Your task to perform on an android device: open app "Fetch Rewards" (install if not already installed) and go to login screen Image 0: 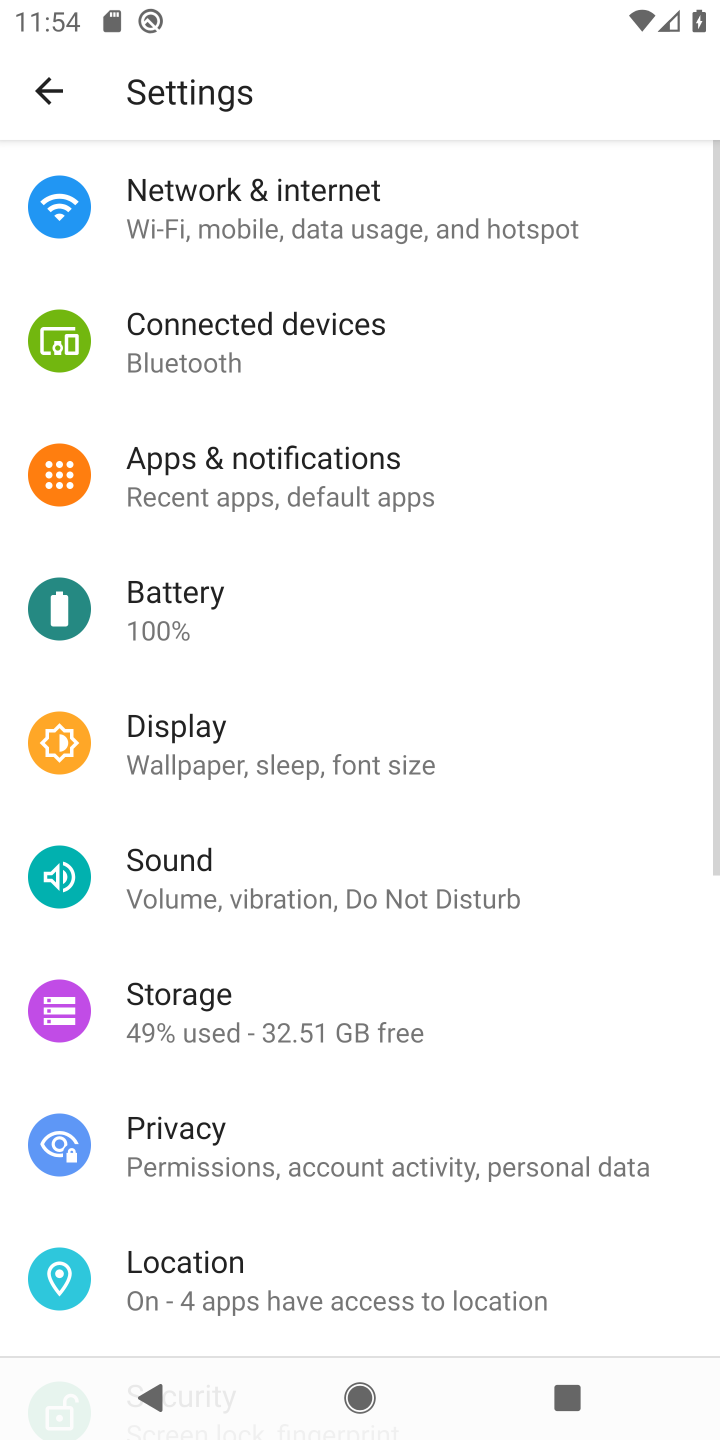
Step 0: press home button
Your task to perform on an android device: open app "Fetch Rewards" (install if not already installed) and go to login screen Image 1: 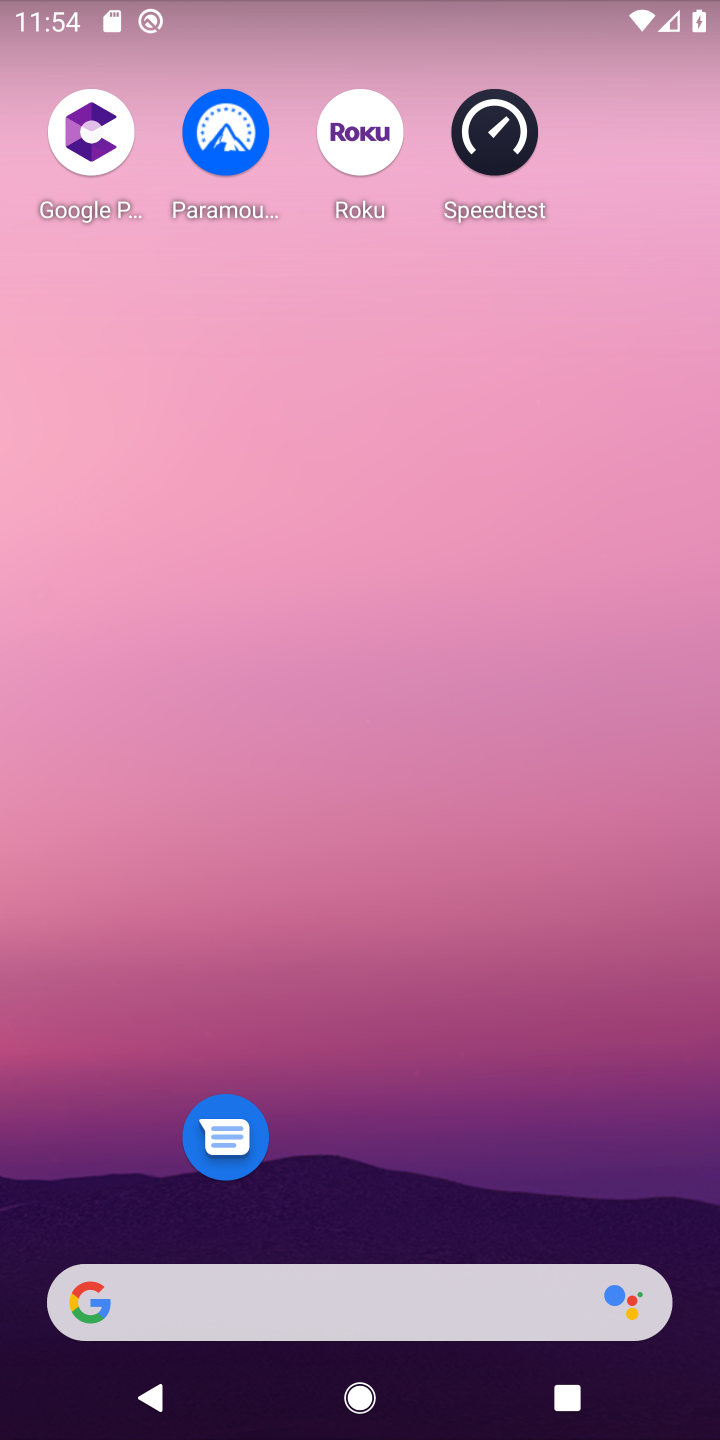
Step 1: drag from (445, 1186) to (408, 401)
Your task to perform on an android device: open app "Fetch Rewards" (install if not already installed) and go to login screen Image 2: 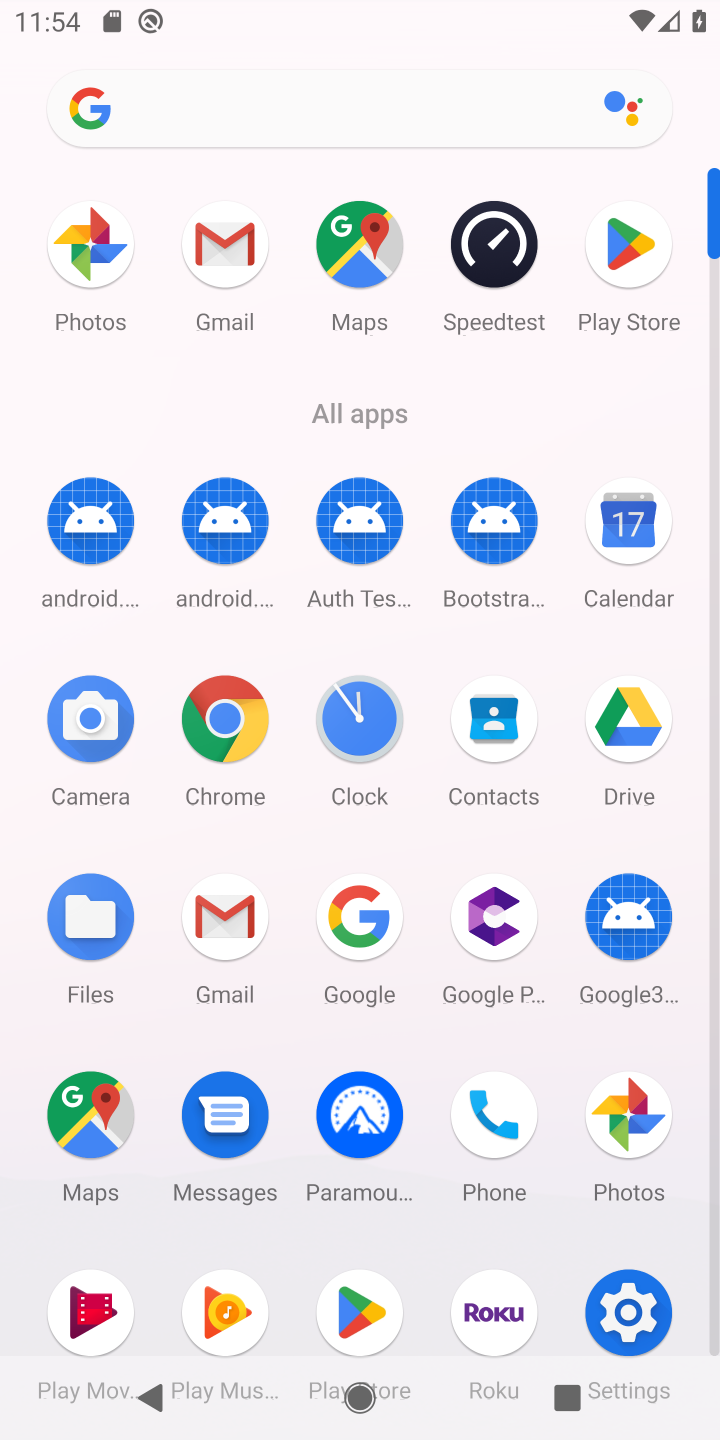
Step 2: click (609, 226)
Your task to perform on an android device: open app "Fetch Rewards" (install if not already installed) and go to login screen Image 3: 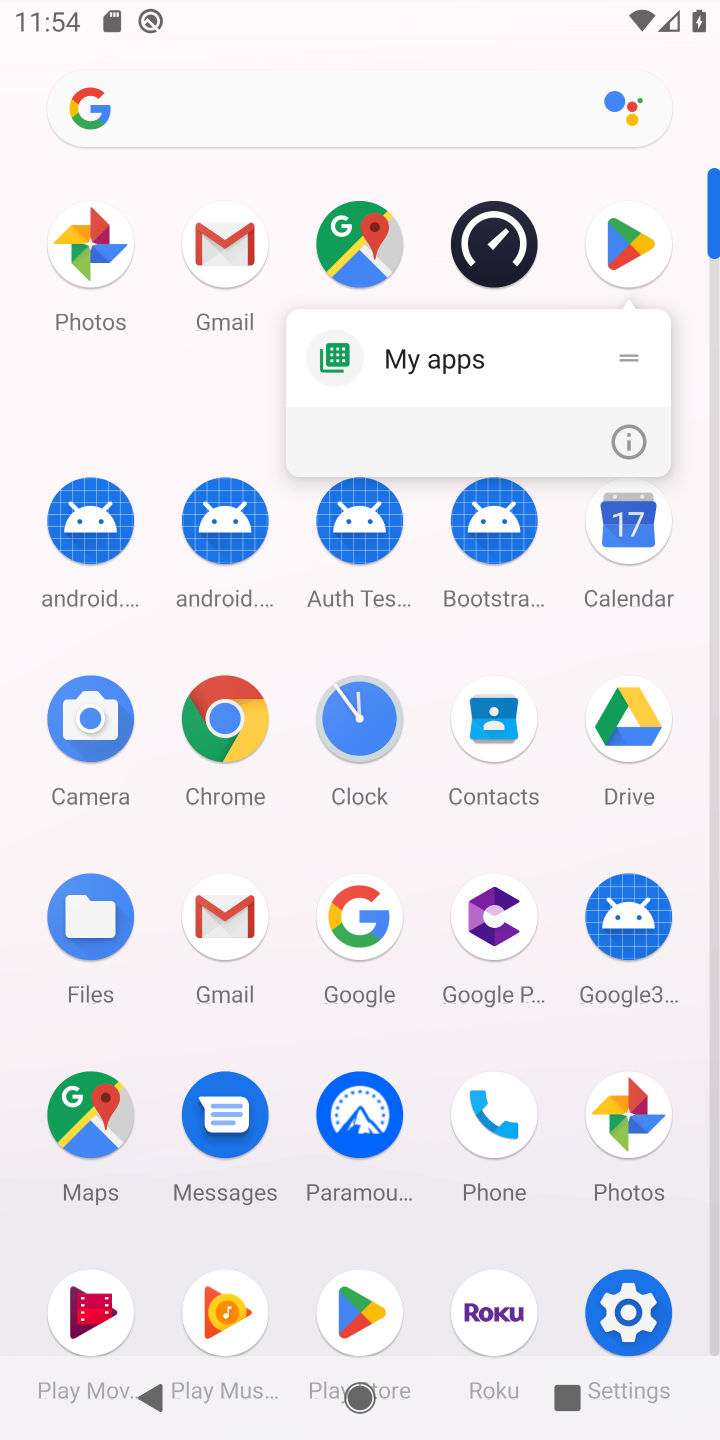
Step 3: click (609, 226)
Your task to perform on an android device: open app "Fetch Rewards" (install if not already installed) and go to login screen Image 4: 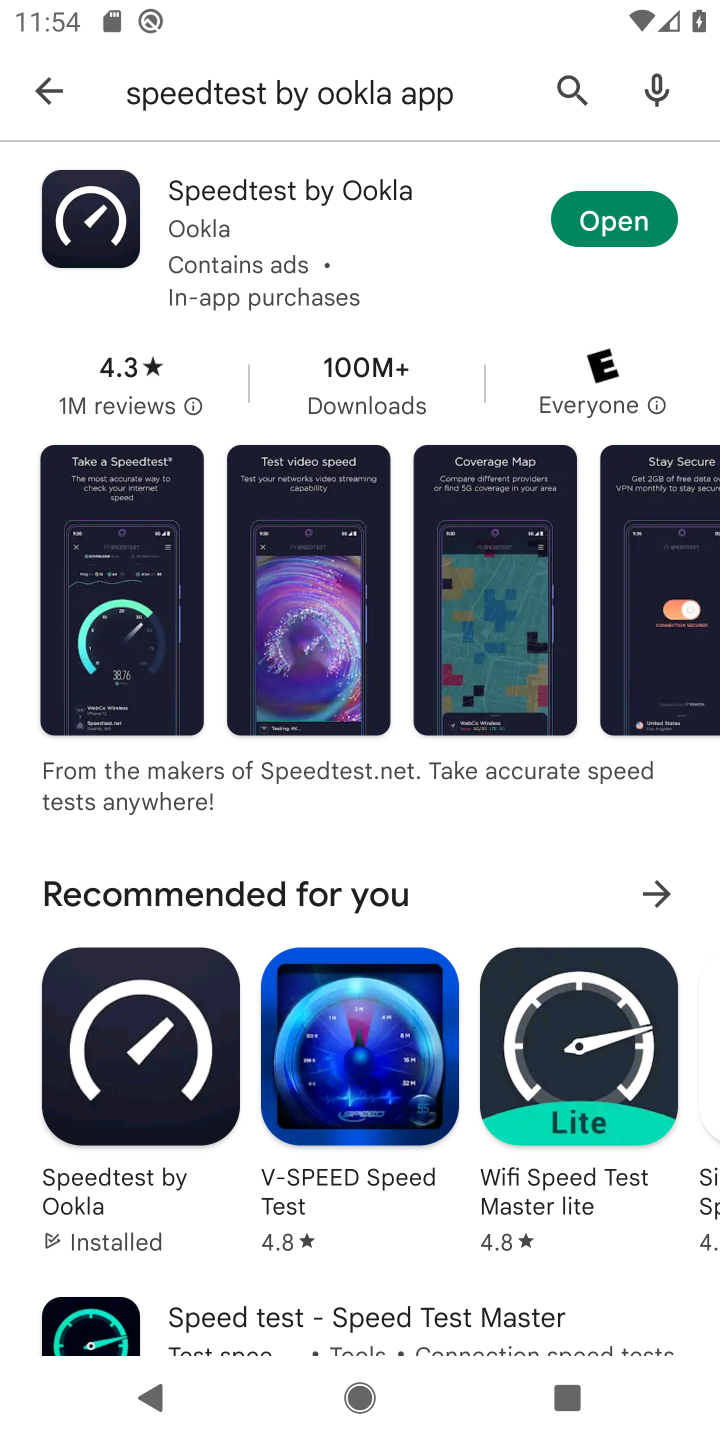
Step 4: click (47, 79)
Your task to perform on an android device: open app "Fetch Rewards" (install if not already installed) and go to login screen Image 5: 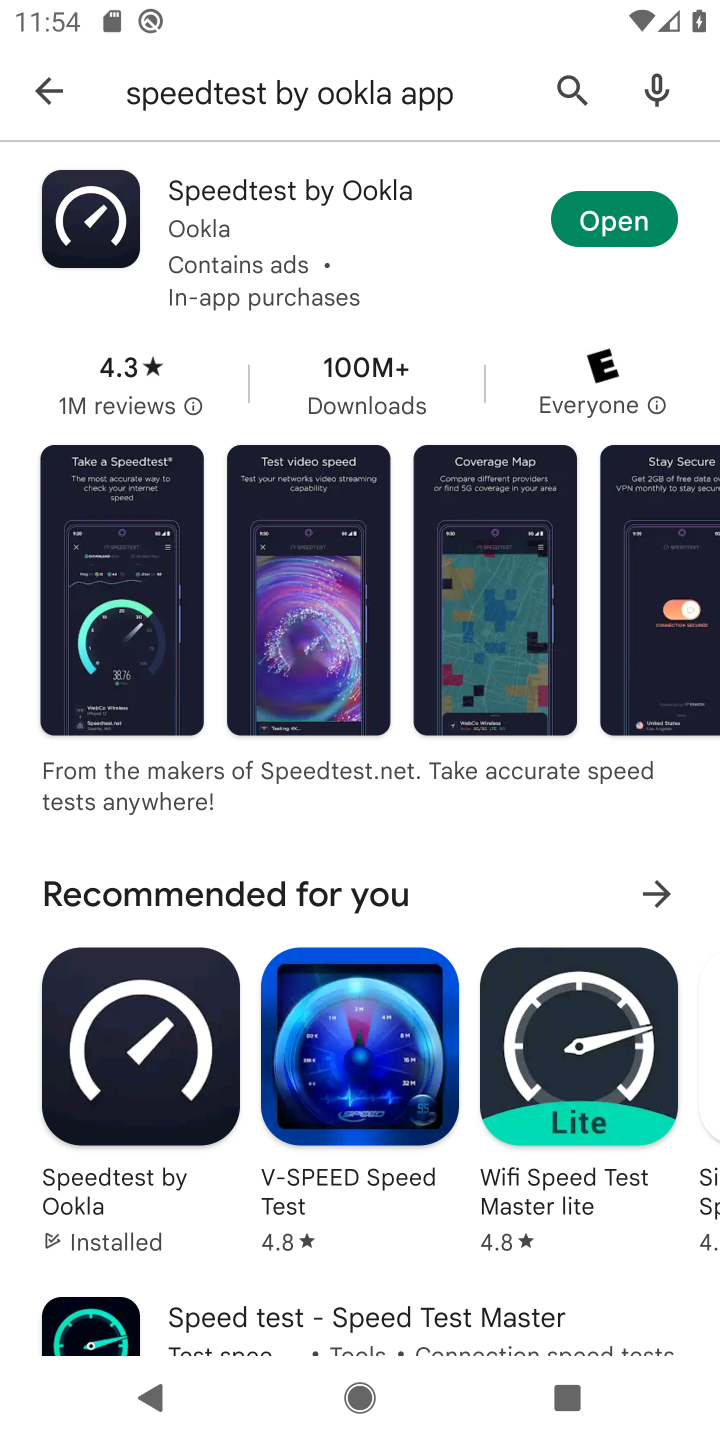
Step 5: click (47, 79)
Your task to perform on an android device: open app "Fetch Rewards" (install if not already installed) and go to login screen Image 6: 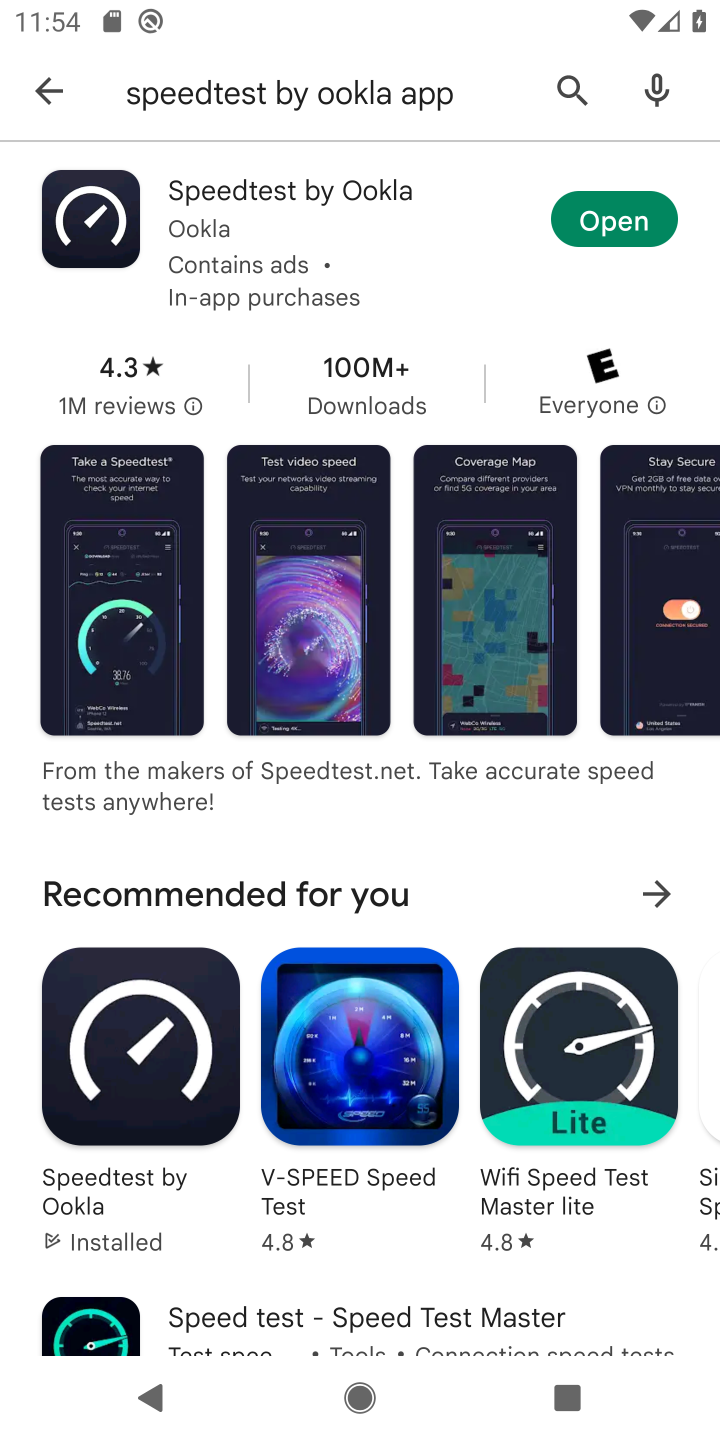
Step 6: click (47, 83)
Your task to perform on an android device: open app "Fetch Rewards" (install if not already installed) and go to login screen Image 7: 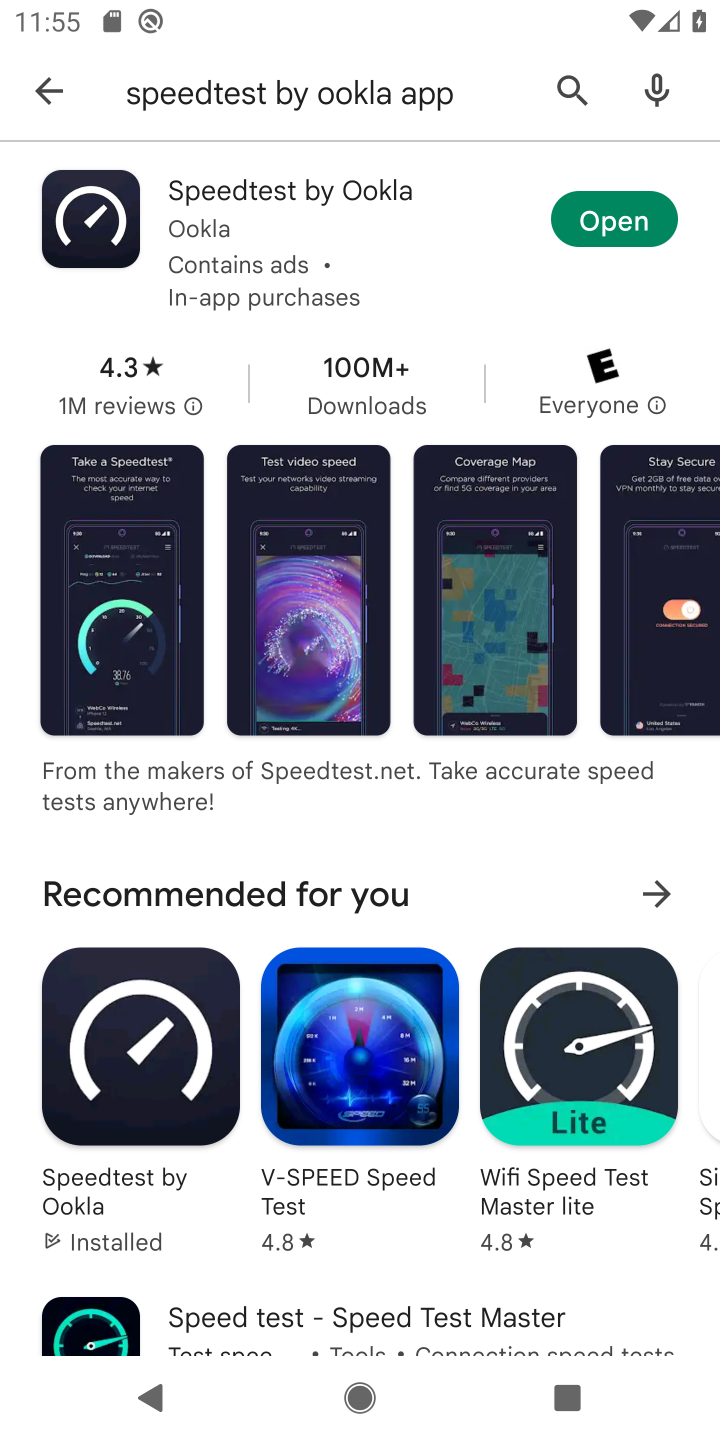
Step 7: click (44, 87)
Your task to perform on an android device: open app "Fetch Rewards" (install if not already installed) and go to login screen Image 8: 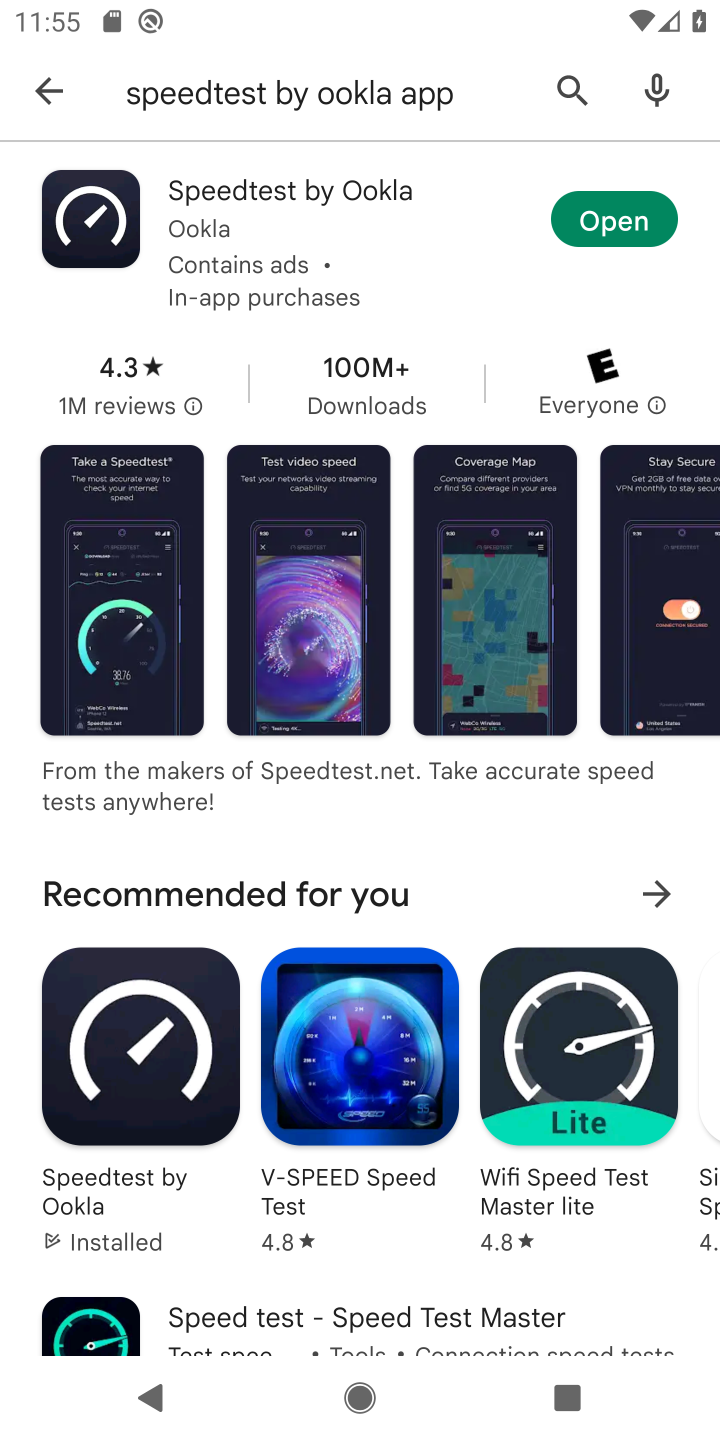
Step 8: click (572, 104)
Your task to perform on an android device: open app "Fetch Rewards" (install if not already installed) and go to login screen Image 9: 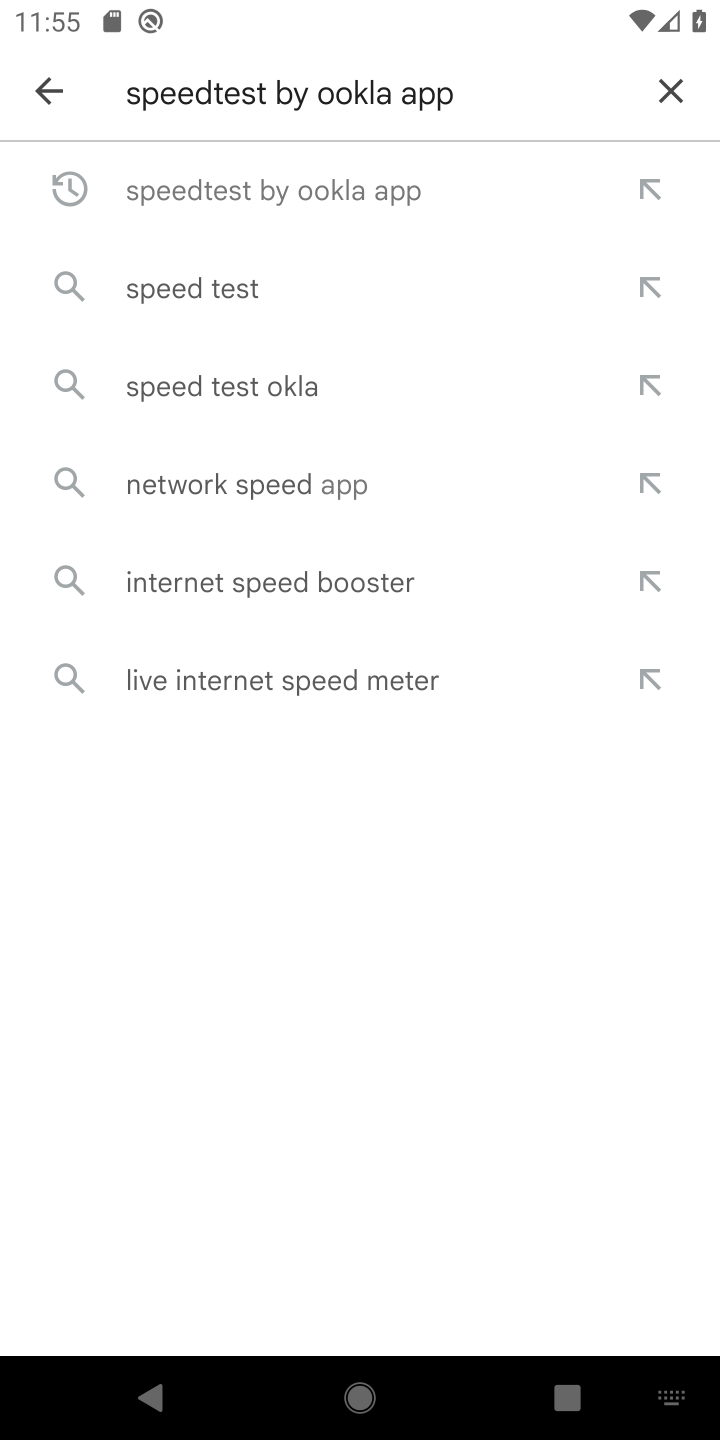
Step 9: click (664, 98)
Your task to perform on an android device: open app "Fetch Rewards" (install if not already installed) and go to login screen Image 10: 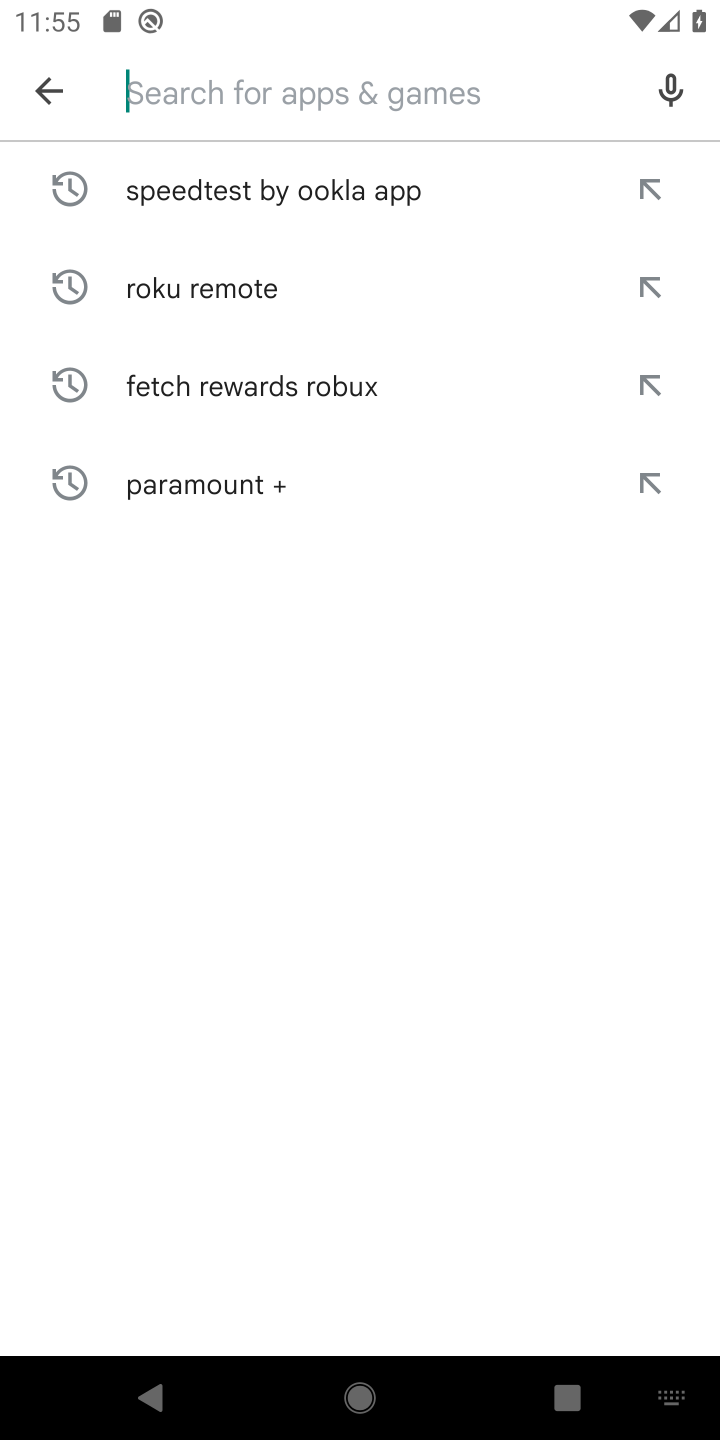
Step 10: click (346, 376)
Your task to perform on an android device: open app "Fetch Rewards" (install if not already installed) and go to login screen Image 11: 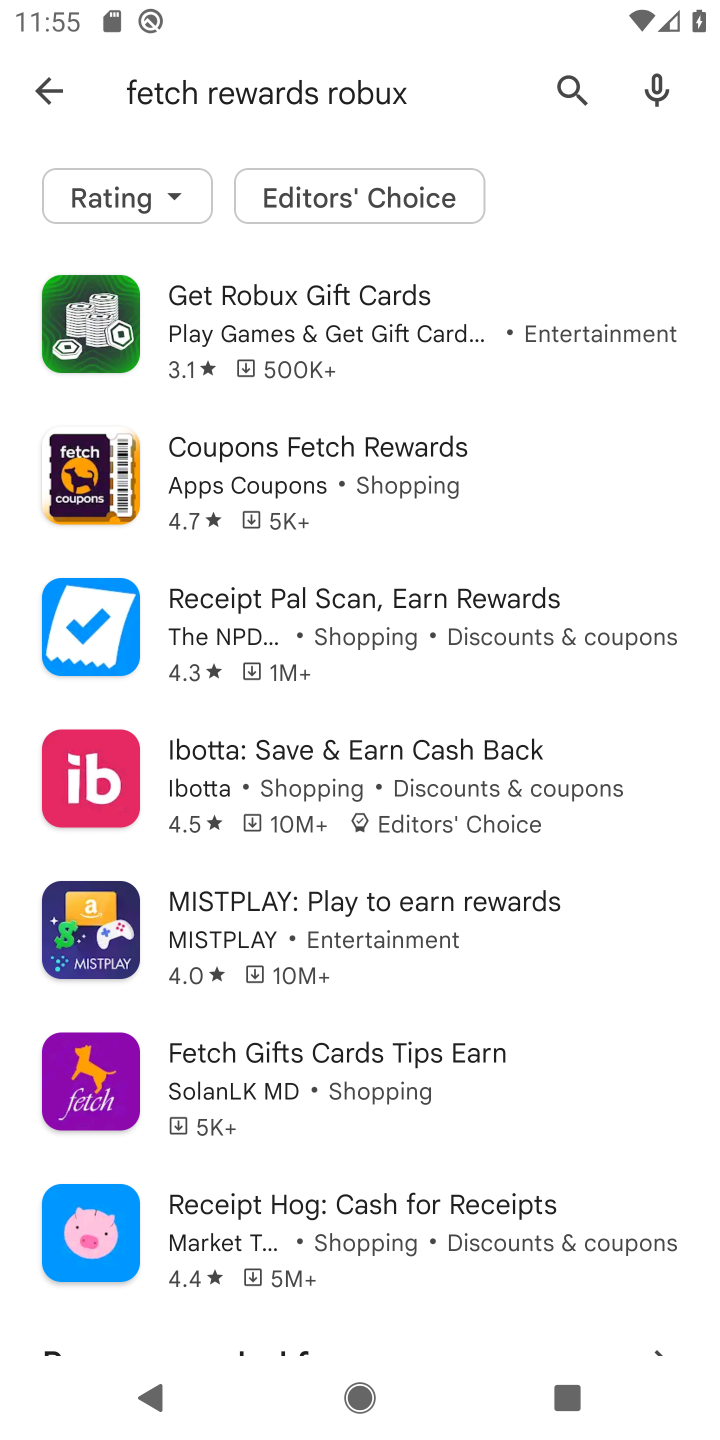
Step 11: click (313, 494)
Your task to perform on an android device: open app "Fetch Rewards" (install if not already installed) and go to login screen Image 12: 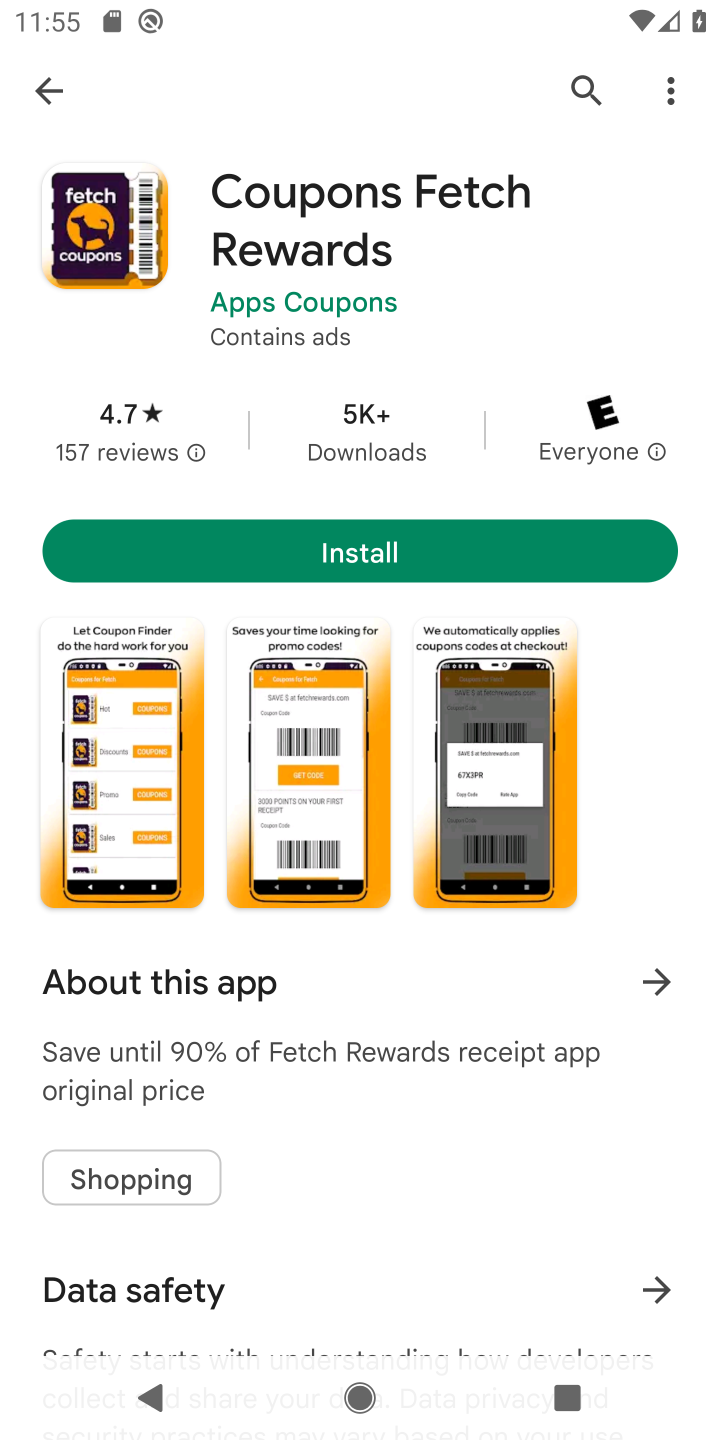
Step 12: click (331, 532)
Your task to perform on an android device: open app "Fetch Rewards" (install if not already installed) and go to login screen Image 13: 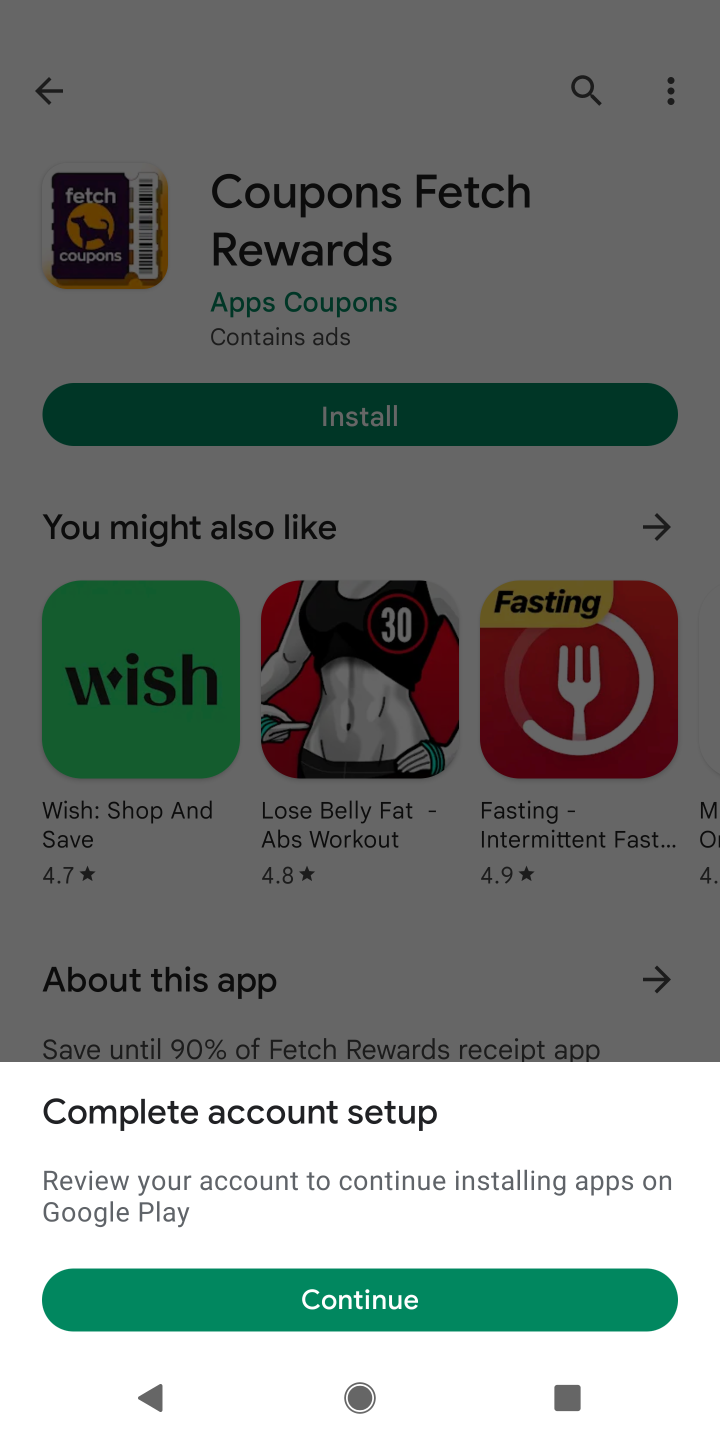
Step 13: click (474, 1286)
Your task to perform on an android device: open app "Fetch Rewards" (install if not already installed) and go to login screen Image 14: 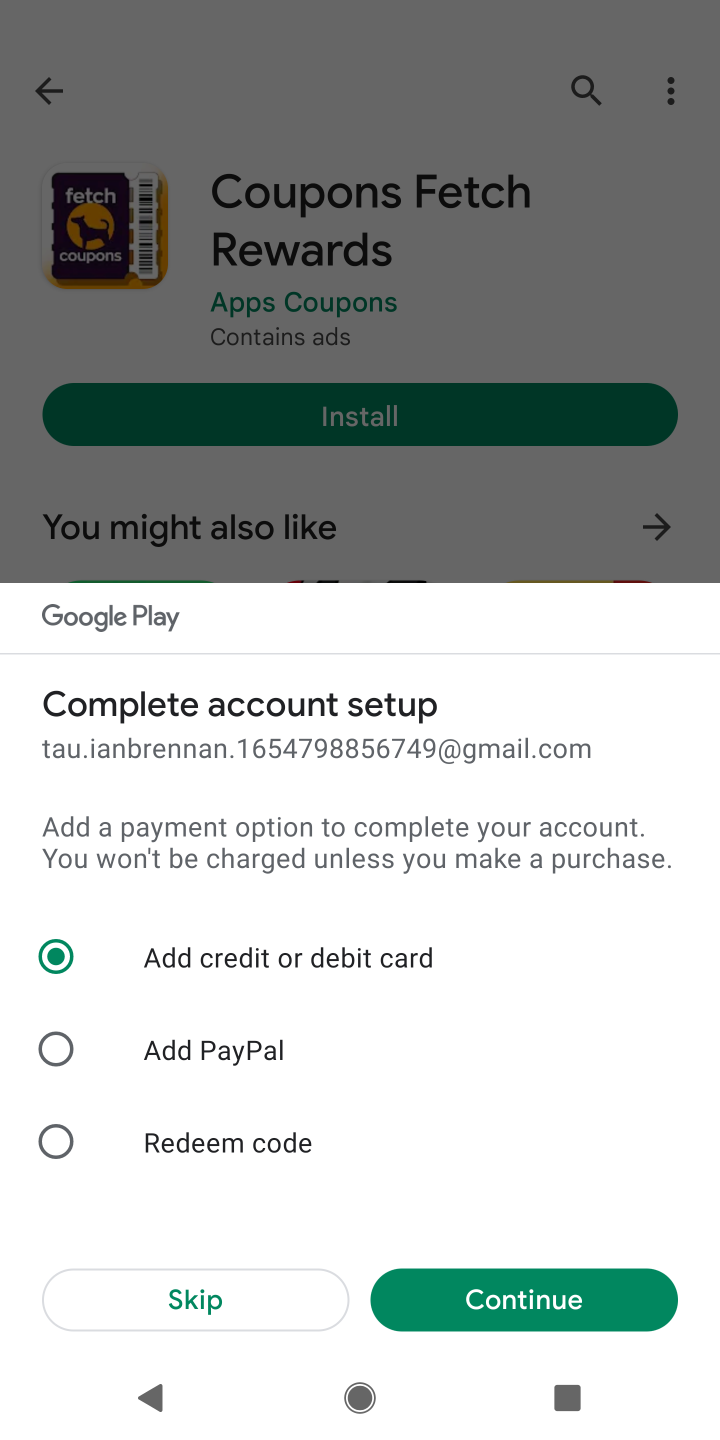
Step 14: click (260, 1310)
Your task to perform on an android device: open app "Fetch Rewards" (install if not already installed) and go to login screen Image 15: 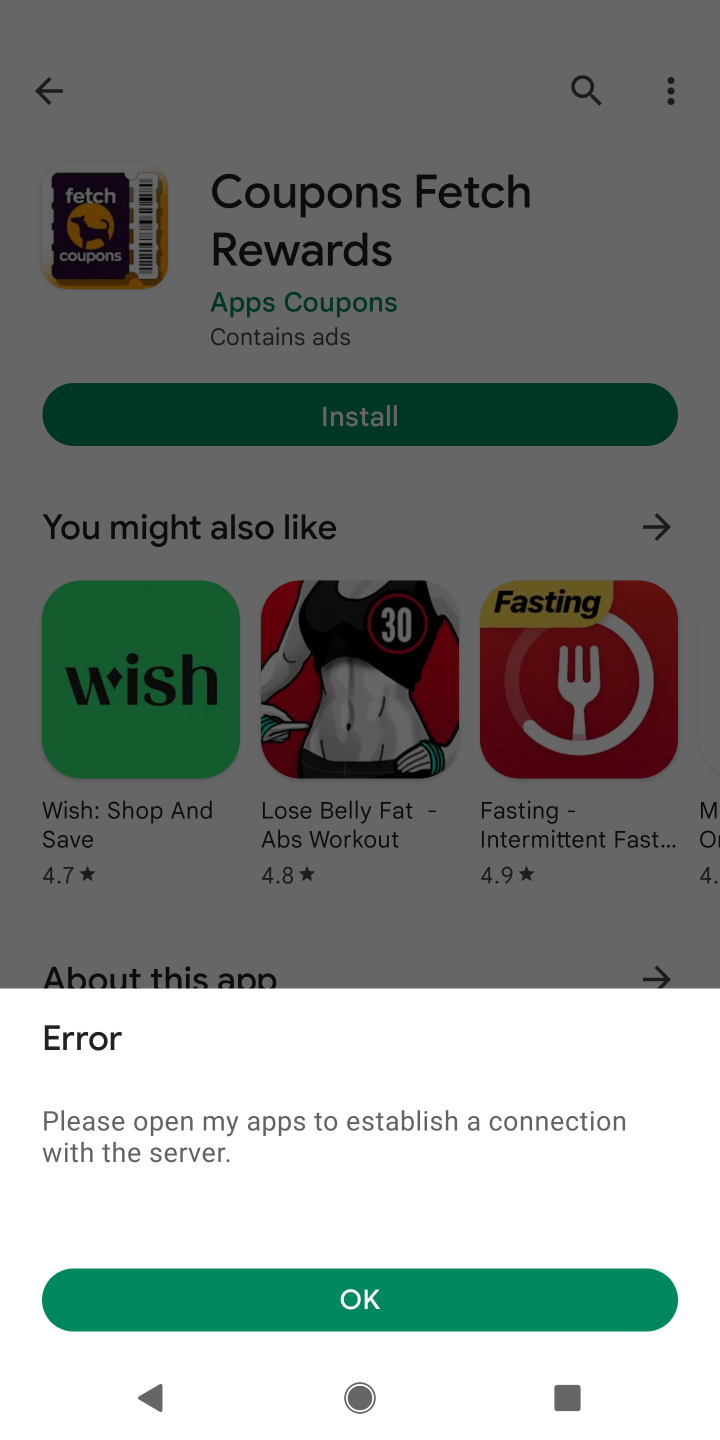
Step 15: task complete